Your task to perform on an android device: turn on data saver in the chrome app Image 0: 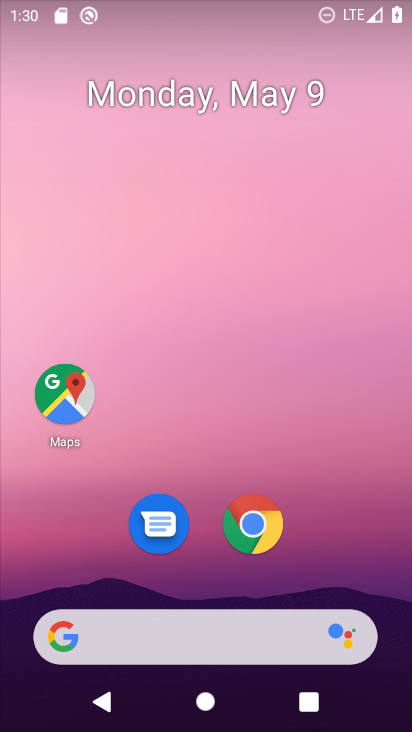
Step 0: drag from (307, 550) to (337, 44)
Your task to perform on an android device: turn on data saver in the chrome app Image 1: 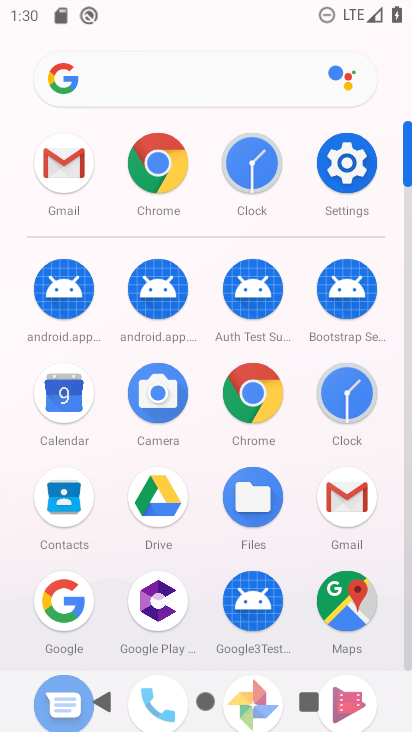
Step 1: click (165, 163)
Your task to perform on an android device: turn on data saver in the chrome app Image 2: 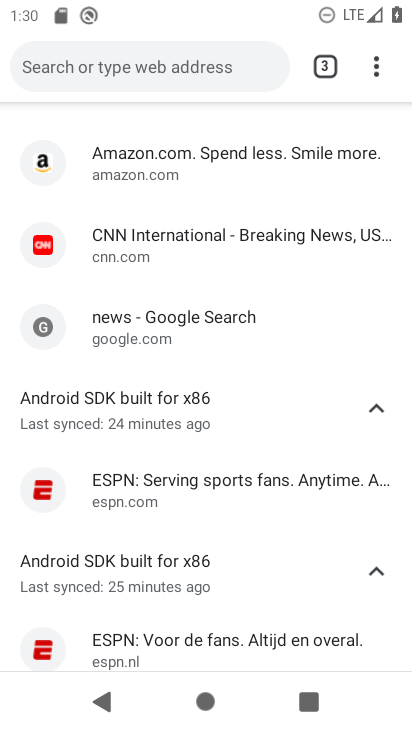
Step 2: click (372, 65)
Your task to perform on an android device: turn on data saver in the chrome app Image 3: 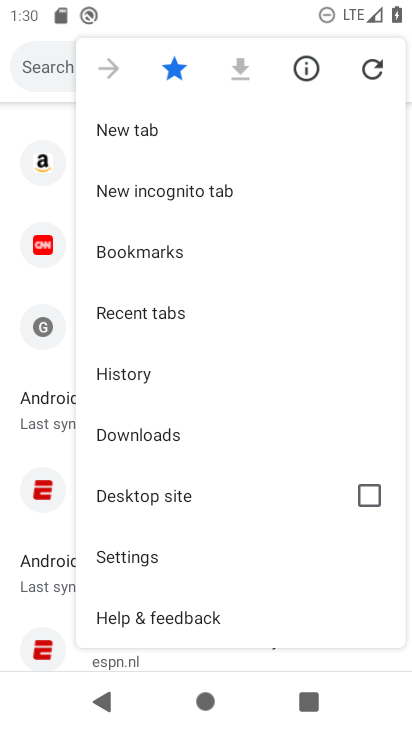
Step 3: click (184, 553)
Your task to perform on an android device: turn on data saver in the chrome app Image 4: 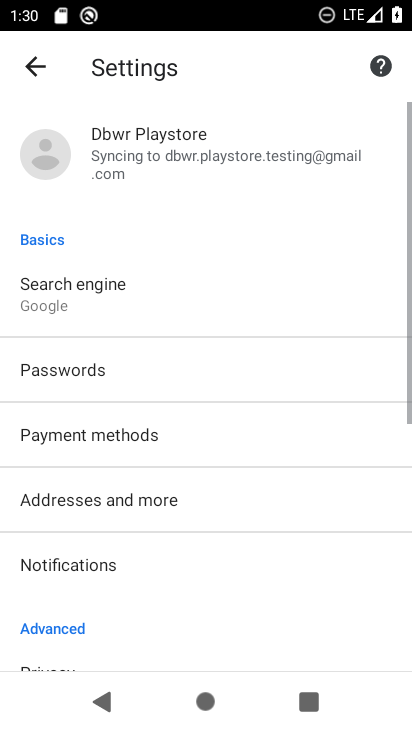
Step 4: drag from (227, 570) to (252, 131)
Your task to perform on an android device: turn on data saver in the chrome app Image 5: 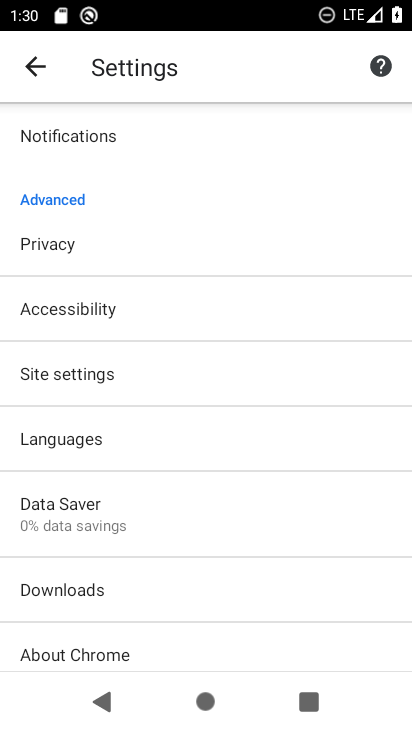
Step 5: click (121, 517)
Your task to perform on an android device: turn on data saver in the chrome app Image 6: 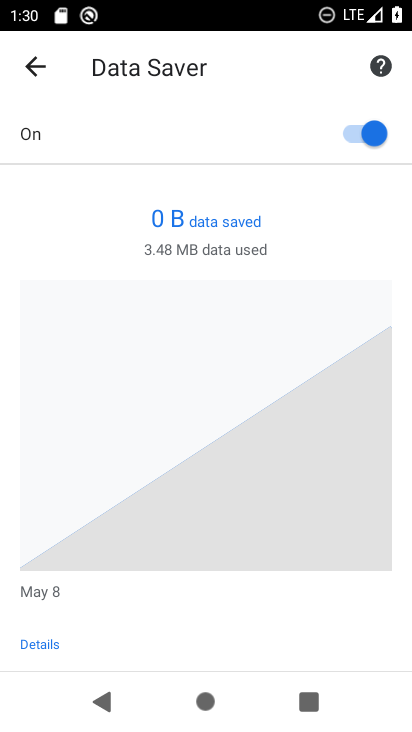
Step 6: task complete